Your task to perform on an android device: Turn on the flashlight Image 0: 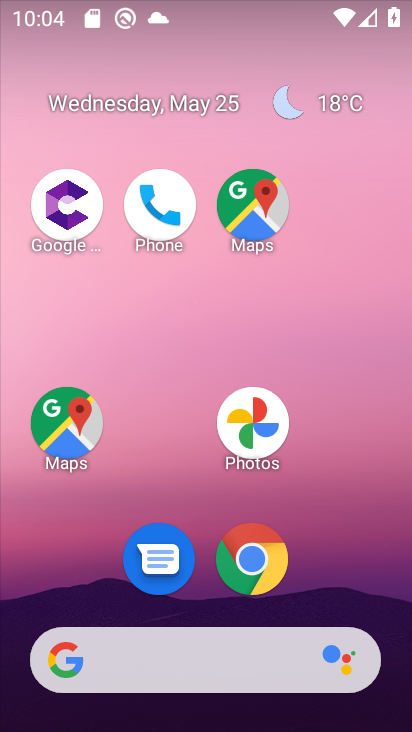
Step 0: drag from (323, 549) to (352, 34)
Your task to perform on an android device: Turn on the flashlight Image 1: 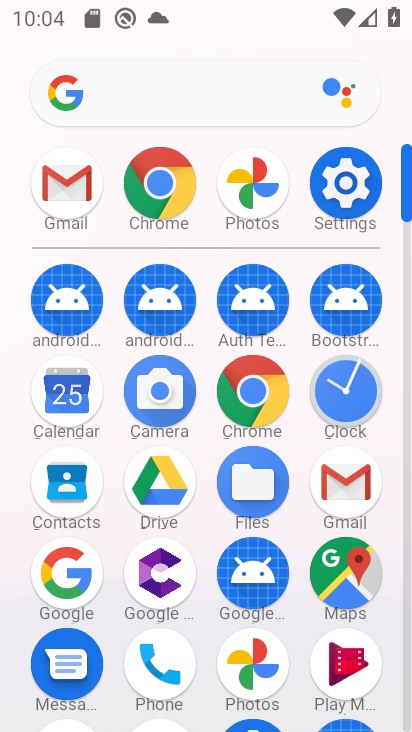
Step 1: click (346, 187)
Your task to perform on an android device: Turn on the flashlight Image 2: 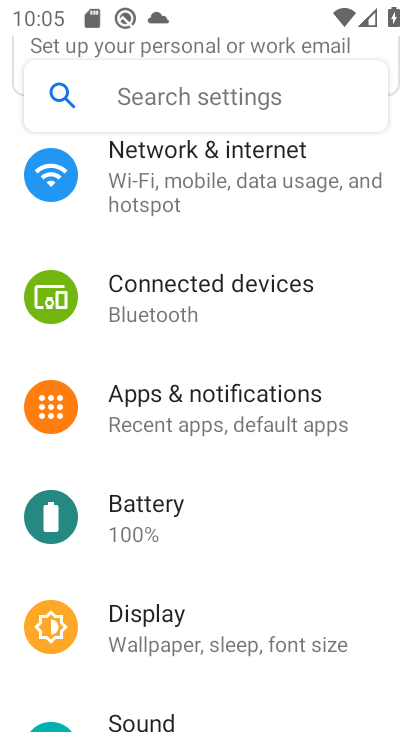
Step 2: click (250, 424)
Your task to perform on an android device: Turn on the flashlight Image 3: 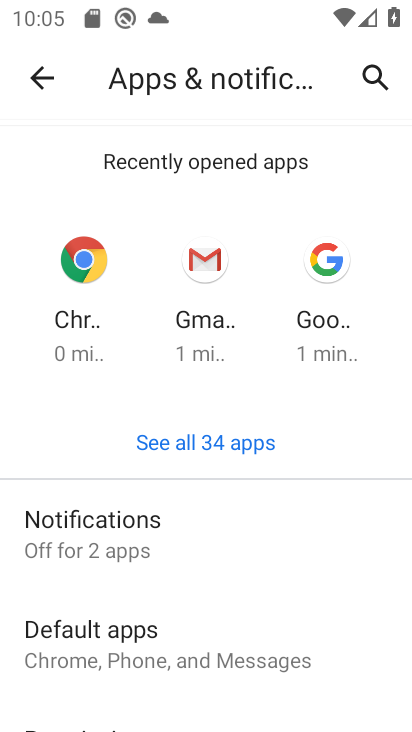
Step 3: drag from (266, 605) to (280, 303)
Your task to perform on an android device: Turn on the flashlight Image 4: 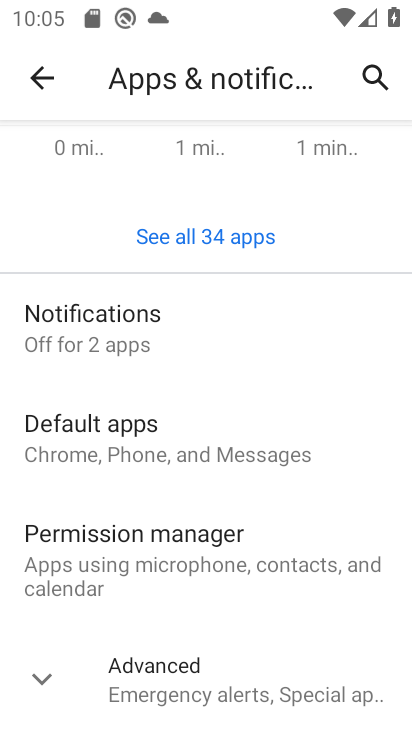
Step 4: click (241, 673)
Your task to perform on an android device: Turn on the flashlight Image 5: 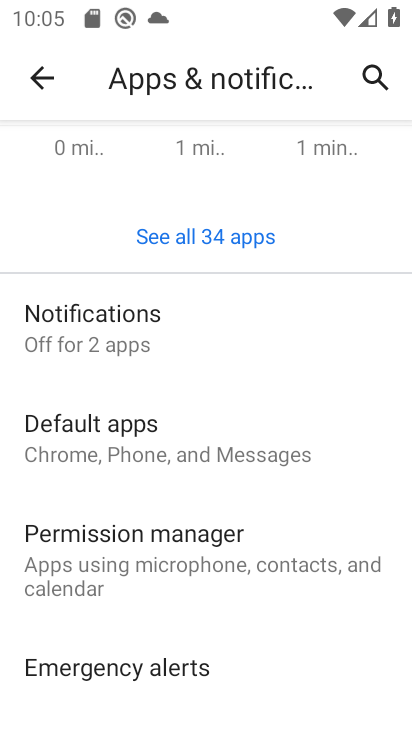
Step 5: drag from (262, 627) to (274, 297)
Your task to perform on an android device: Turn on the flashlight Image 6: 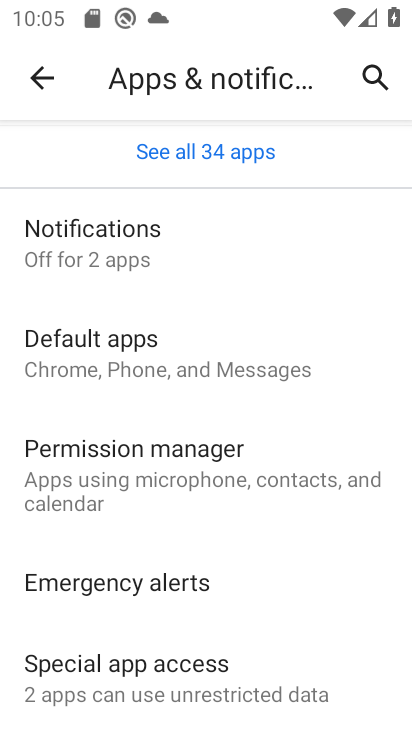
Step 6: click (236, 686)
Your task to perform on an android device: Turn on the flashlight Image 7: 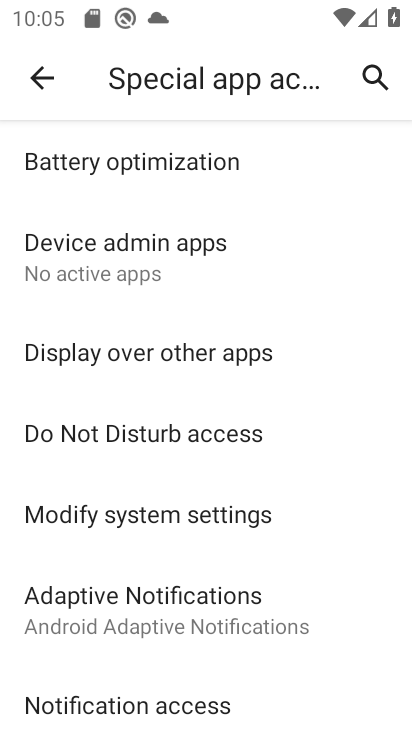
Step 7: task complete